Your task to perform on an android device: turn off improve location accuracy Image 0: 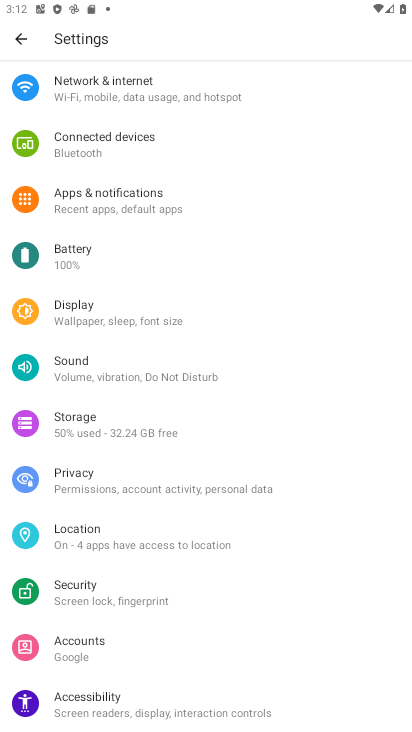
Step 0: click (139, 555)
Your task to perform on an android device: turn off improve location accuracy Image 1: 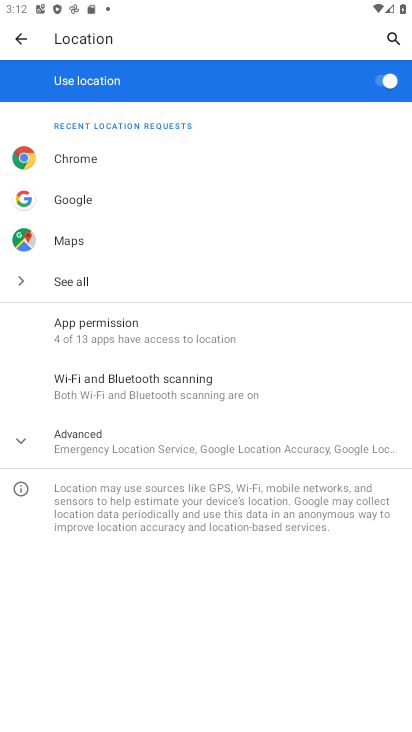
Step 1: task complete